Your task to perform on an android device: Open network settings Image 0: 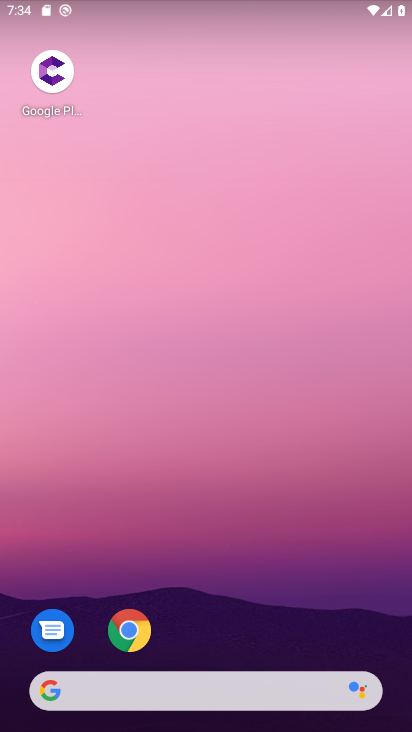
Step 0: drag from (114, 506) to (283, 214)
Your task to perform on an android device: Open network settings Image 1: 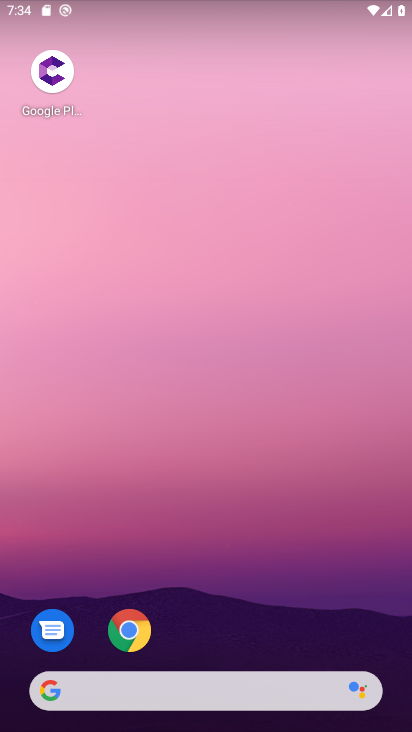
Step 1: drag from (69, 466) to (190, 151)
Your task to perform on an android device: Open network settings Image 2: 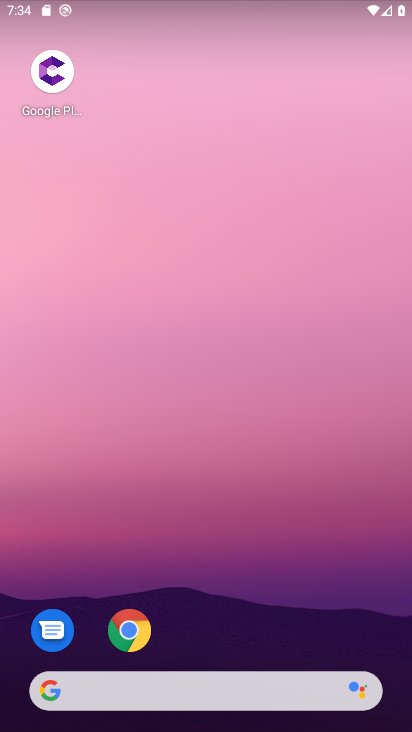
Step 2: drag from (7, 677) to (330, 102)
Your task to perform on an android device: Open network settings Image 3: 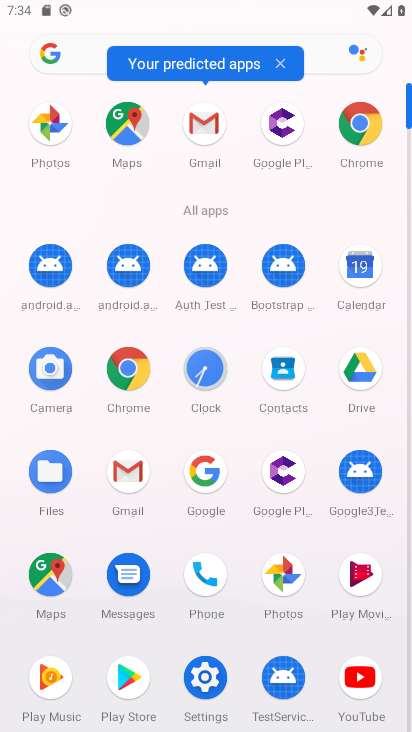
Step 3: click (199, 679)
Your task to perform on an android device: Open network settings Image 4: 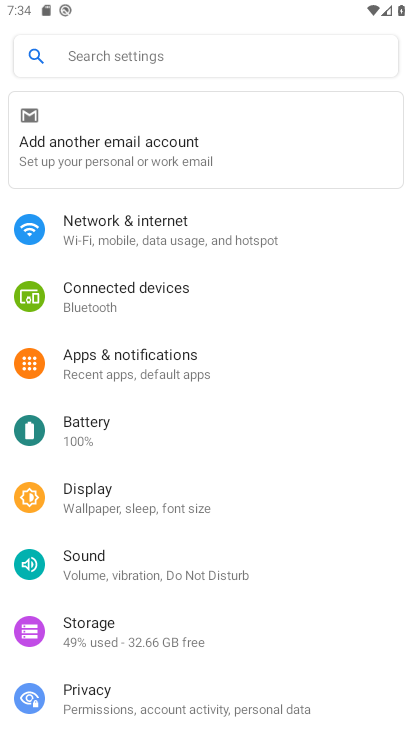
Step 4: click (199, 679)
Your task to perform on an android device: Open network settings Image 5: 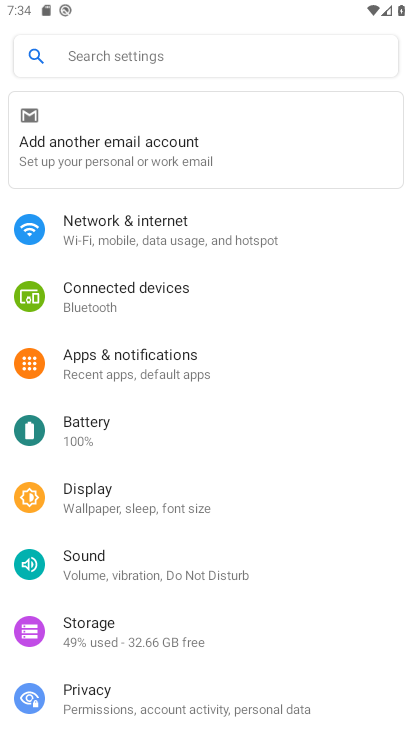
Step 5: click (199, 679)
Your task to perform on an android device: Open network settings Image 6: 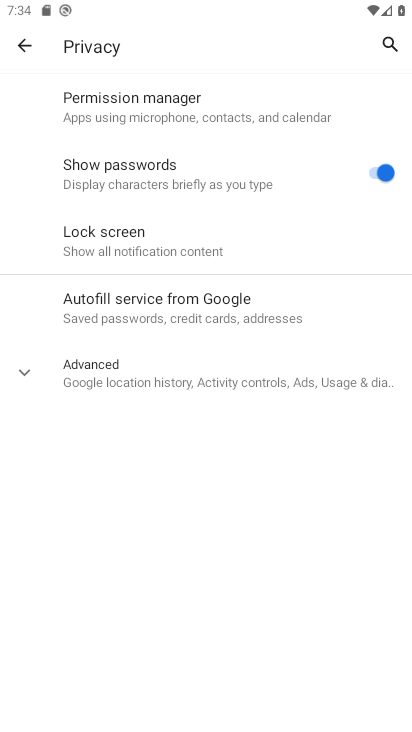
Step 6: click (199, 679)
Your task to perform on an android device: Open network settings Image 7: 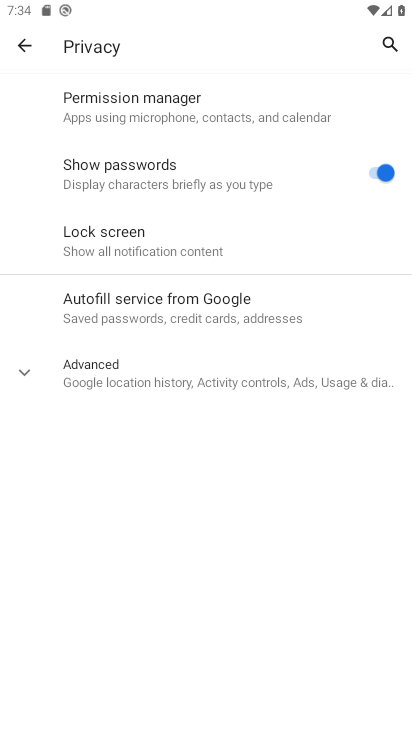
Step 7: click (199, 679)
Your task to perform on an android device: Open network settings Image 8: 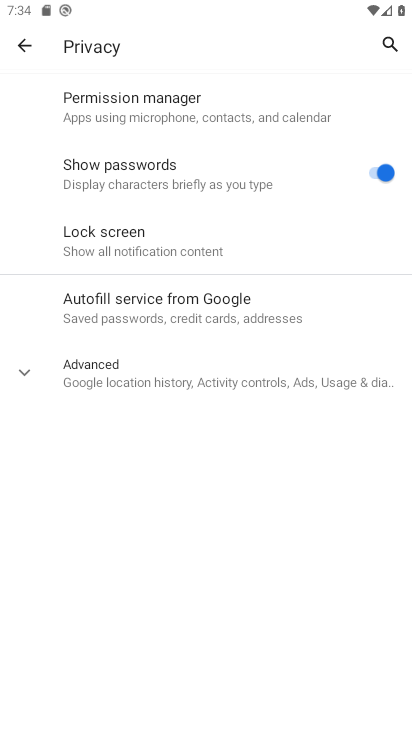
Step 8: click (199, 679)
Your task to perform on an android device: Open network settings Image 9: 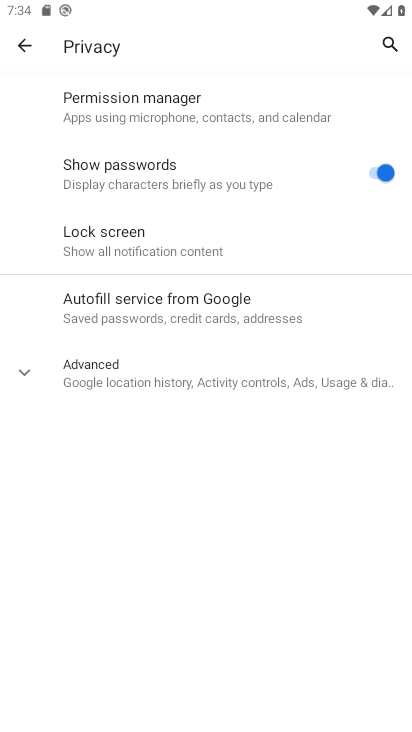
Step 9: click (199, 679)
Your task to perform on an android device: Open network settings Image 10: 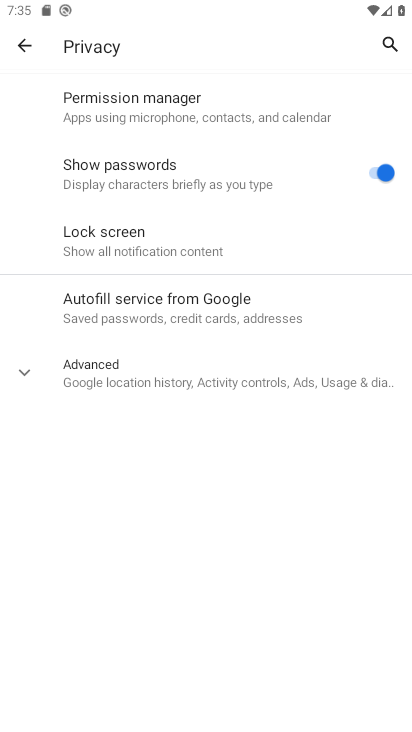
Step 10: task complete